Your task to perform on an android device: open app "Google Maps" Image 0: 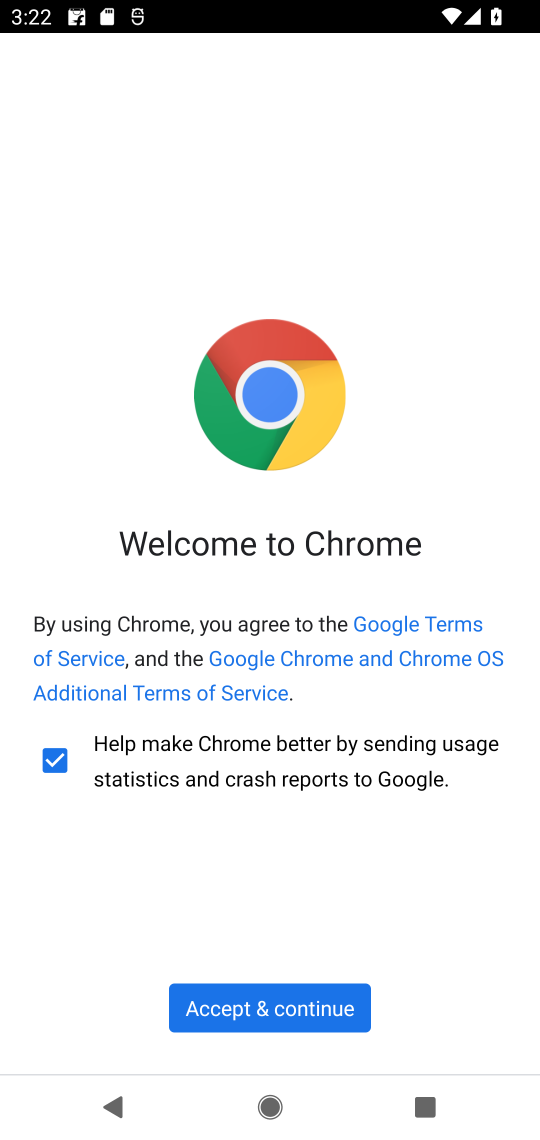
Step 0: press home button
Your task to perform on an android device: open app "Google Maps" Image 1: 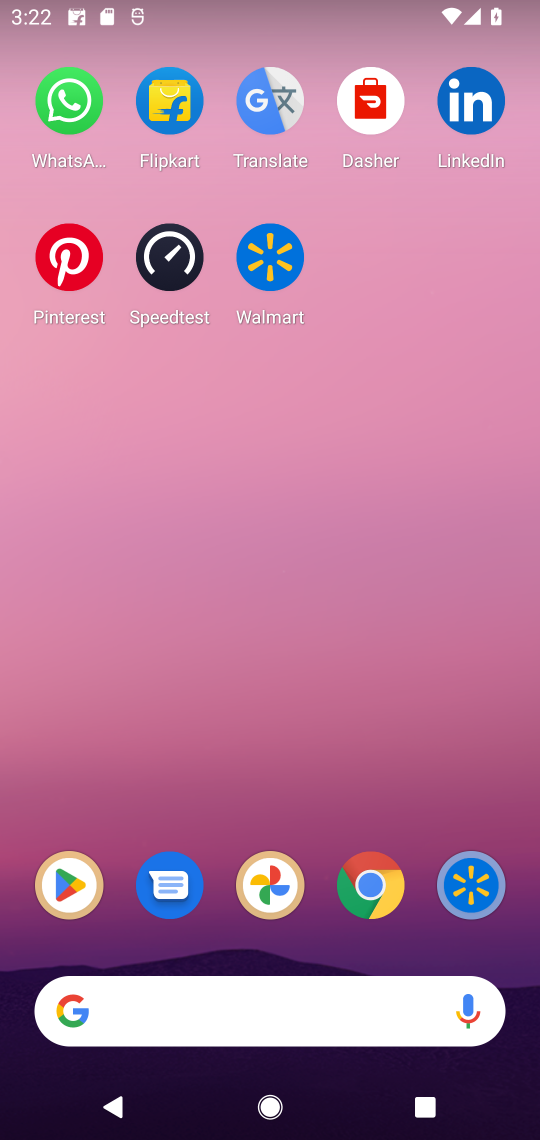
Step 1: click (60, 896)
Your task to perform on an android device: open app "Google Maps" Image 2: 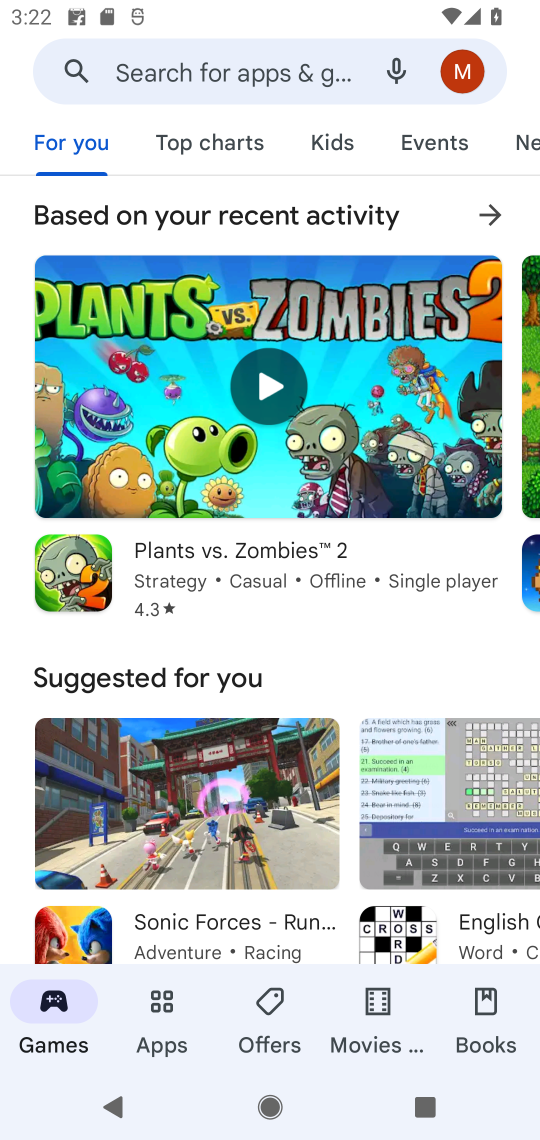
Step 2: click (309, 79)
Your task to perform on an android device: open app "Google Maps" Image 3: 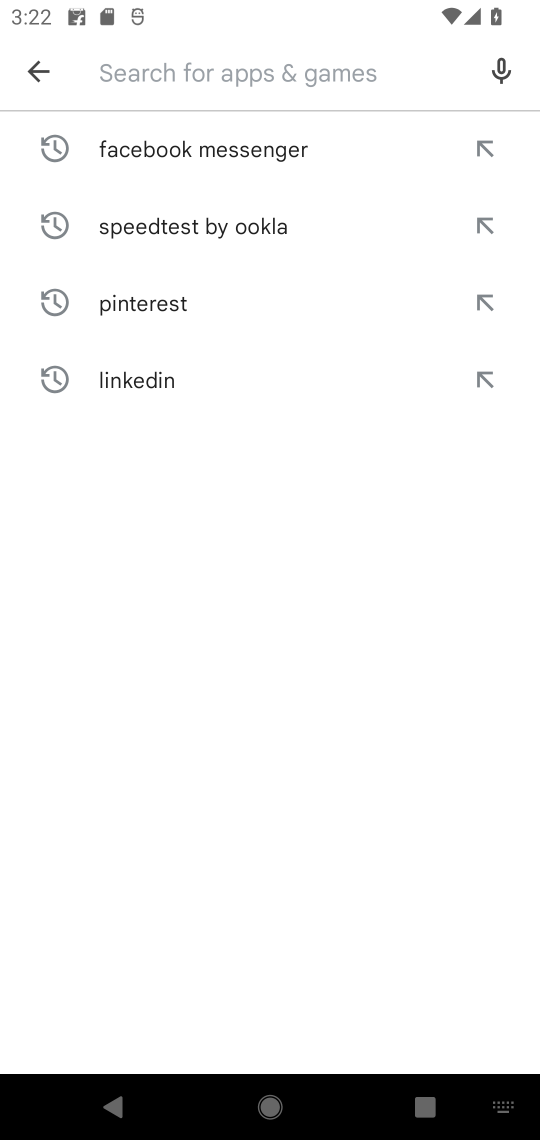
Step 3: type "Google Maps"
Your task to perform on an android device: open app "Google Maps" Image 4: 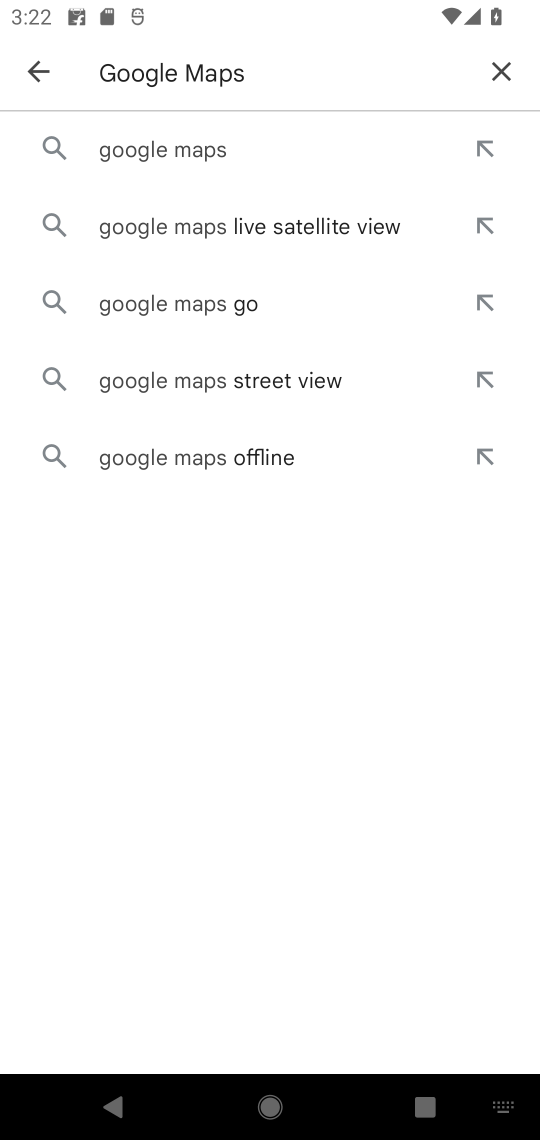
Step 4: click (141, 151)
Your task to perform on an android device: open app "Google Maps" Image 5: 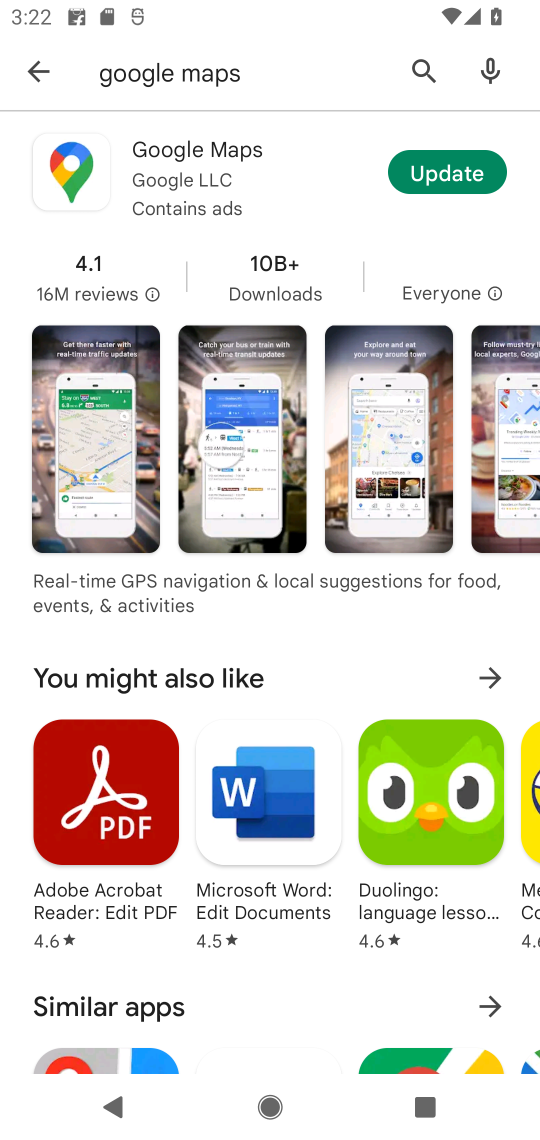
Step 5: click (450, 182)
Your task to perform on an android device: open app "Google Maps" Image 6: 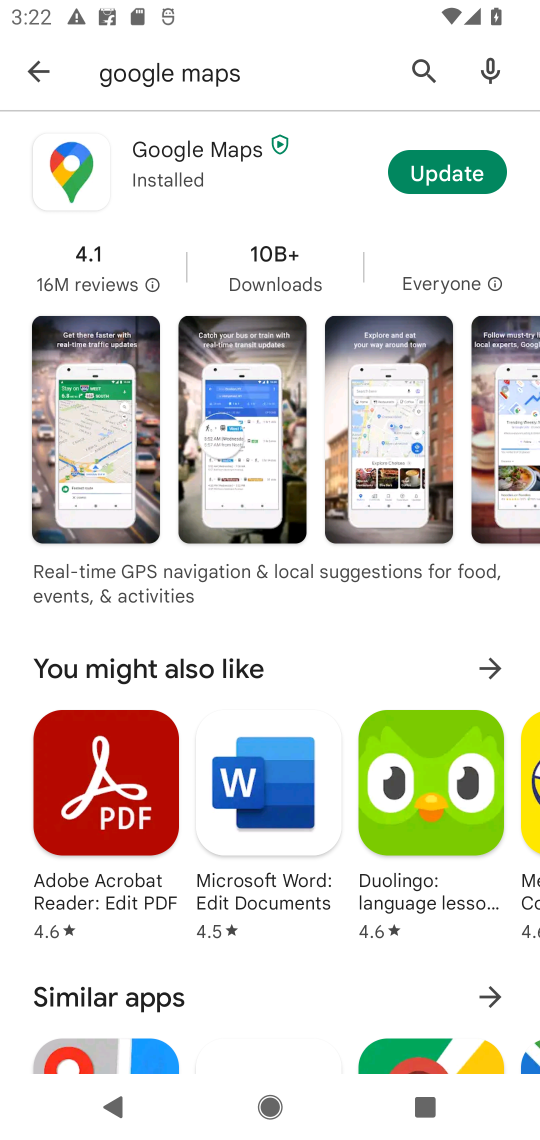
Step 6: click (449, 169)
Your task to perform on an android device: open app "Google Maps" Image 7: 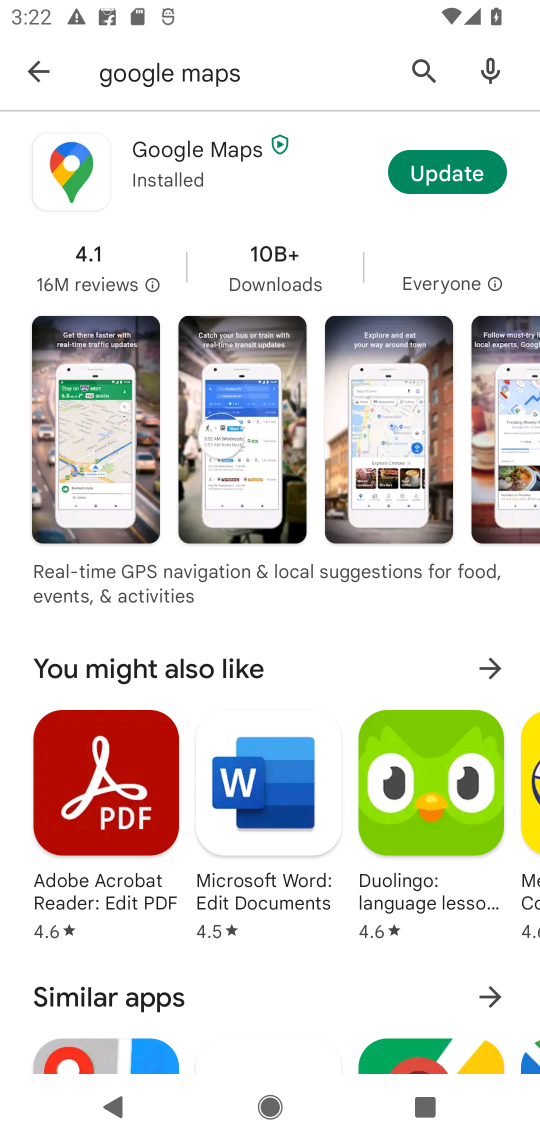
Step 7: click (167, 167)
Your task to perform on an android device: open app "Google Maps" Image 8: 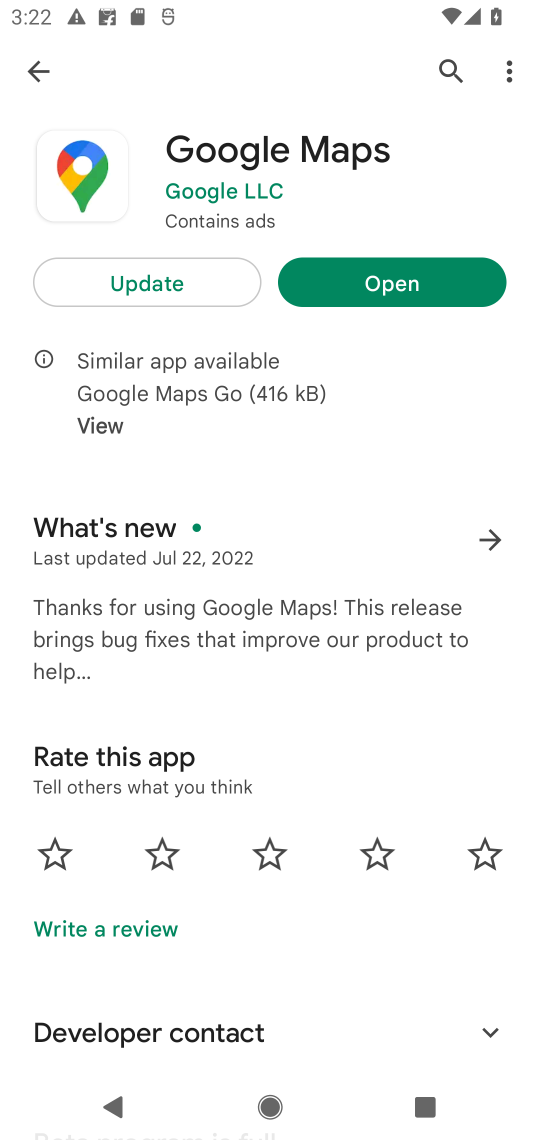
Step 8: click (400, 283)
Your task to perform on an android device: open app "Google Maps" Image 9: 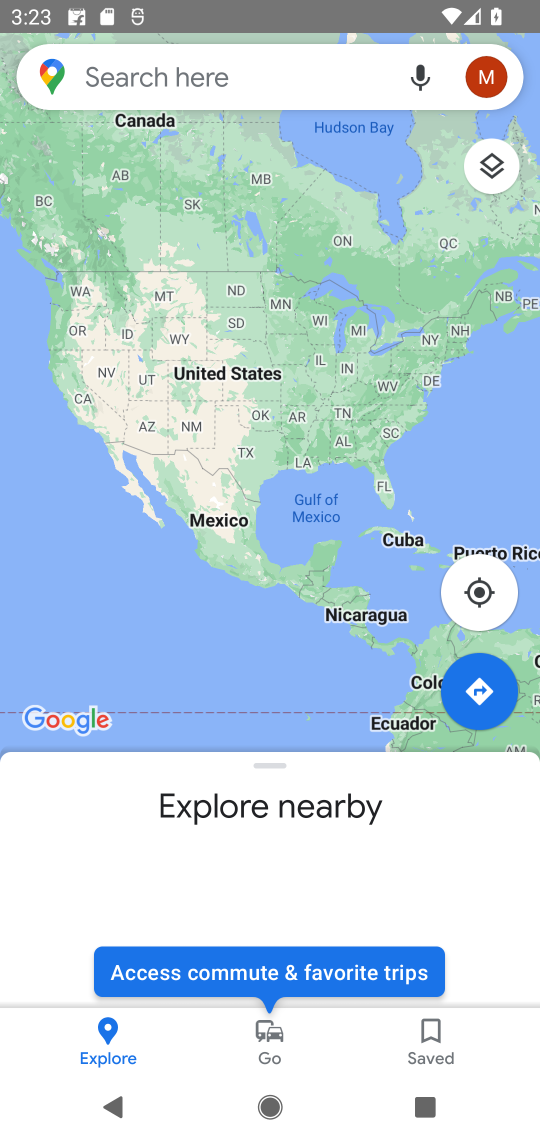
Step 9: task complete